Your task to perform on an android device: see tabs open on other devices in the chrome app Image 0: 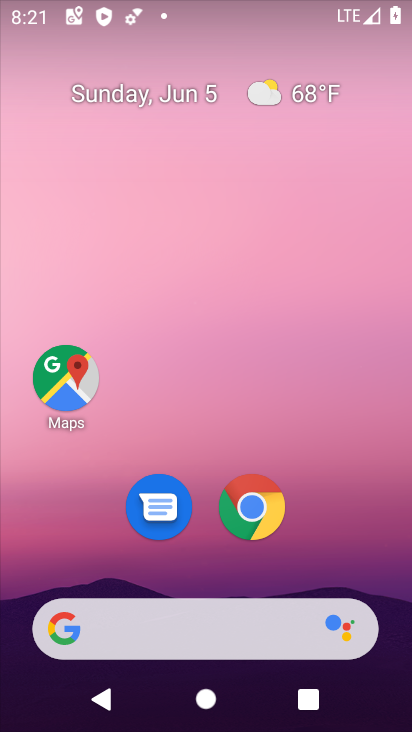
Step 0: click (259, 513)
Your task to perform on an android device: see tabs open on other devices in the chrome app Image 1: 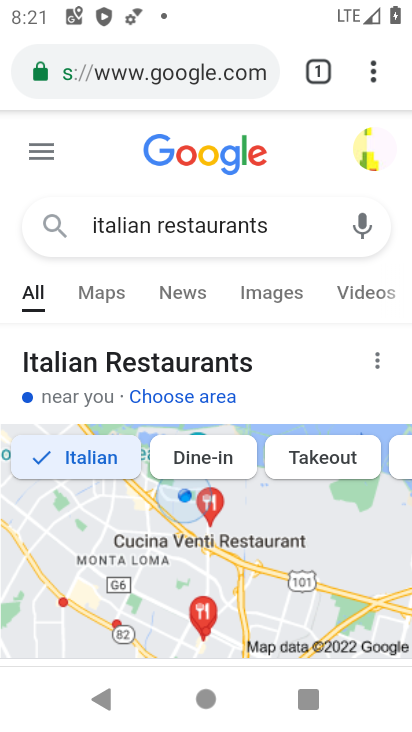
Step 1: click (374, 73)
Your task to perform on an android device: see tabs open on other devices in the chrome app Image 2: 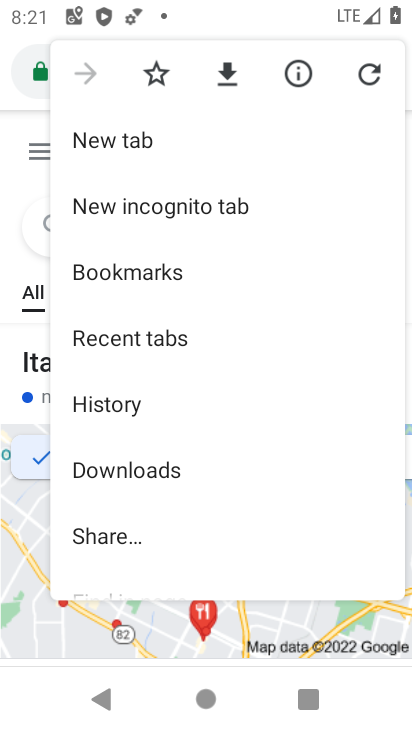
Step 2: click (152, 337)
Your task to perform on an android device: see tabs open on other devices in the chrome app Image 3: 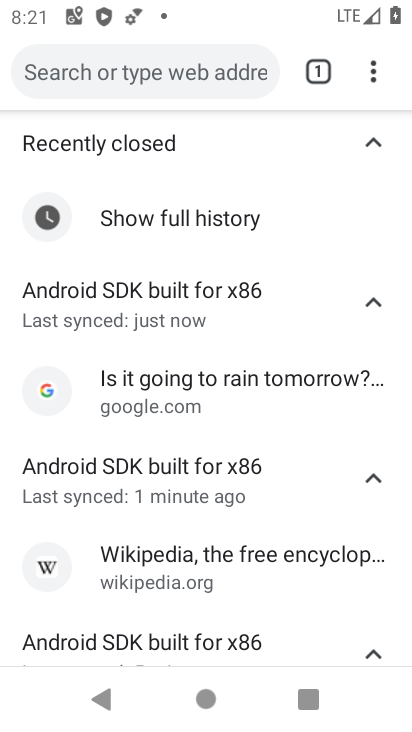
Step 3: task complete